Your task to perform on an android device: check out phone information Image 0: 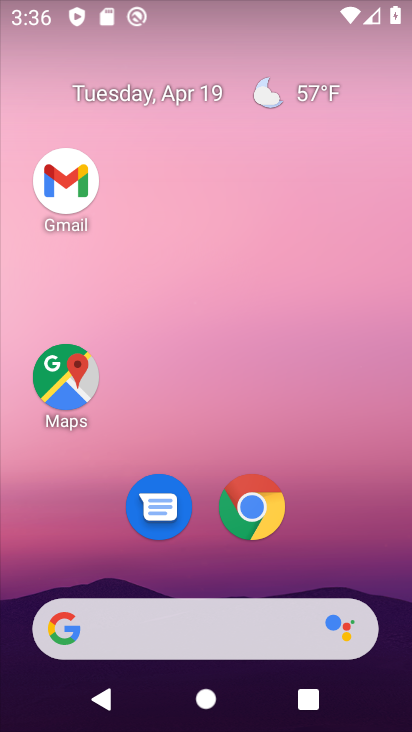
Step 0: drag from (235, 574) to (255, 223)
Your task to perform on an android device: check out phone information Image 1: 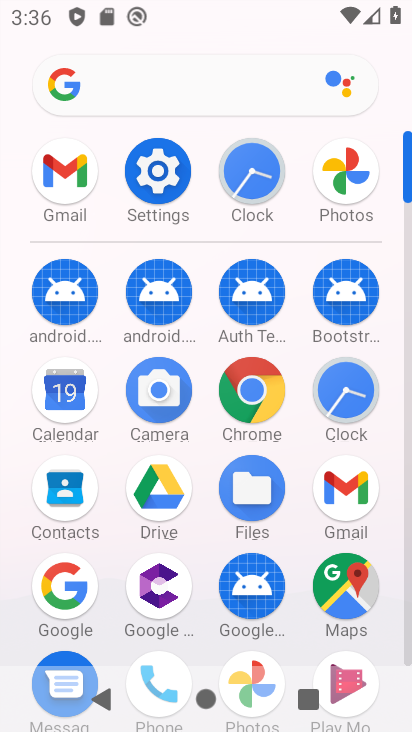
Step 1: click (171, 182)
Your task to perform on an android device: check out phone information Image 2: 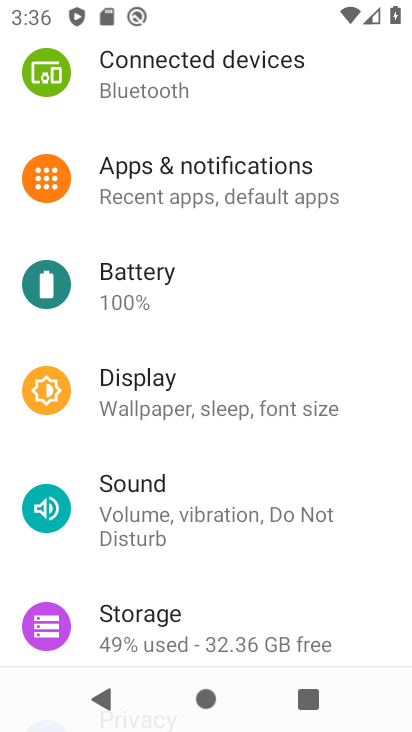
Step 2: drag from (163, 601) to (239, 222)
Your task to perform on an android device: check out phone information Image 3: 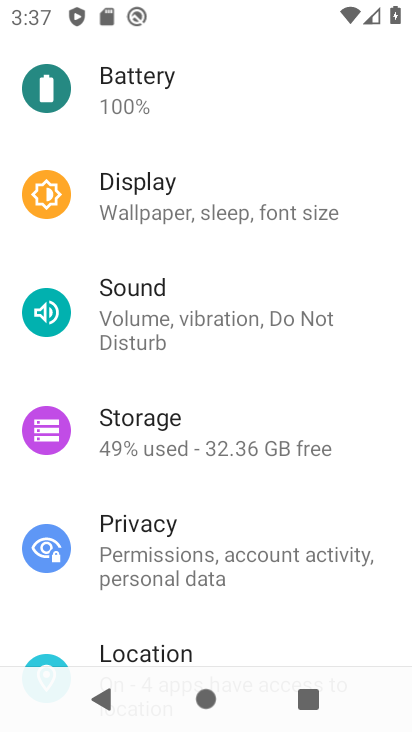
Step 3: drag from (279, 611) to (307, 245)
Your task to perform on an android device: check out phone information Image 4: 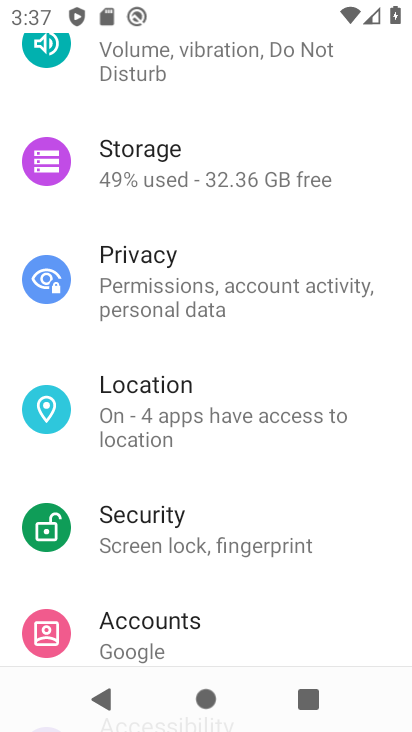
Step 4: drag from (280, 645) to (317, 237)
Your task to perform on an android device: check out phone information Image 5: 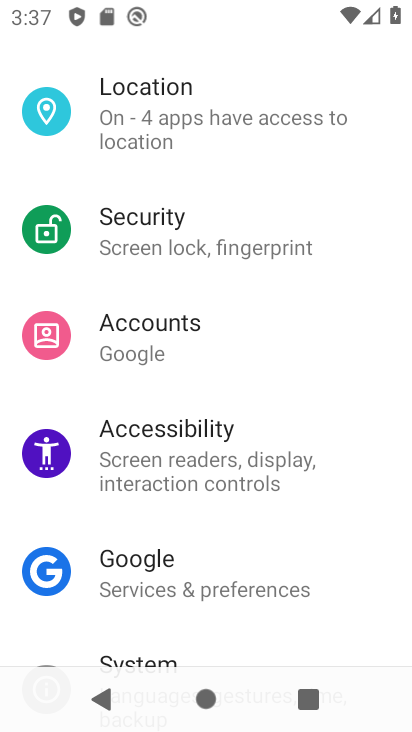
Step 5: drag from (301, 632) to (316, 225)
Your task to perform on an android device: check out phone information Image 6: 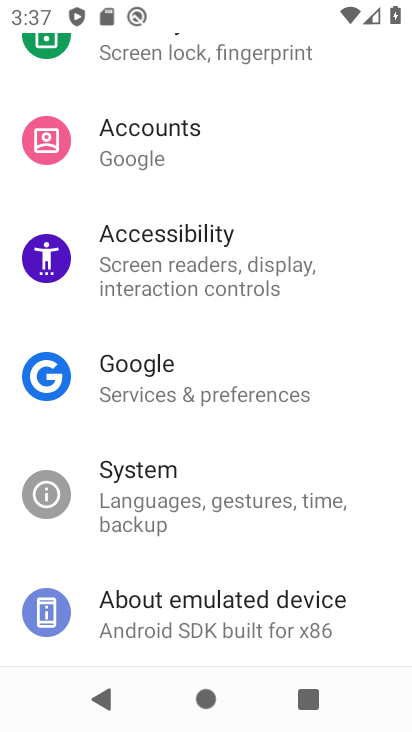
Step 6: click (246, 596)
Your task to perform on an android device: check out phone information Image 7: 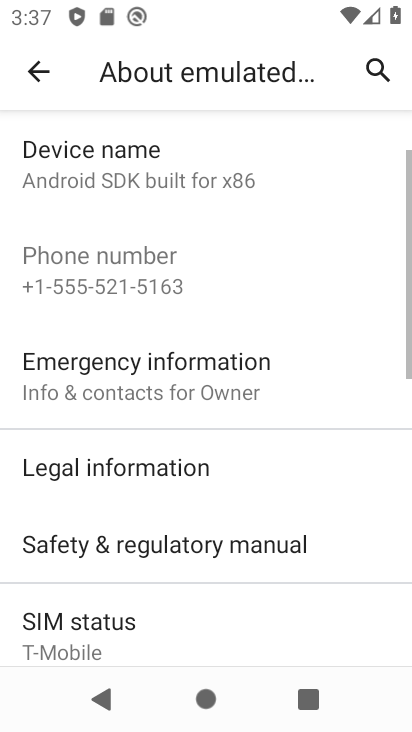
Step 7: drag from (204, 612) to (295, 188)
Your task to perform on an android device: check out phone information Image 8: 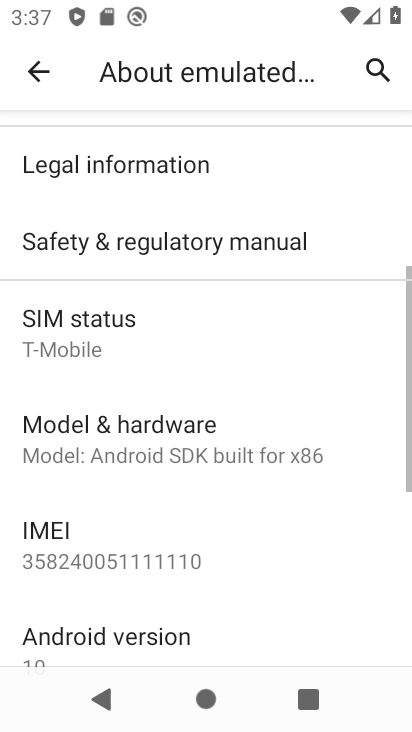
Step 8: click (242, 440)
Your task to perform on an android device: check out phone information Image 9: 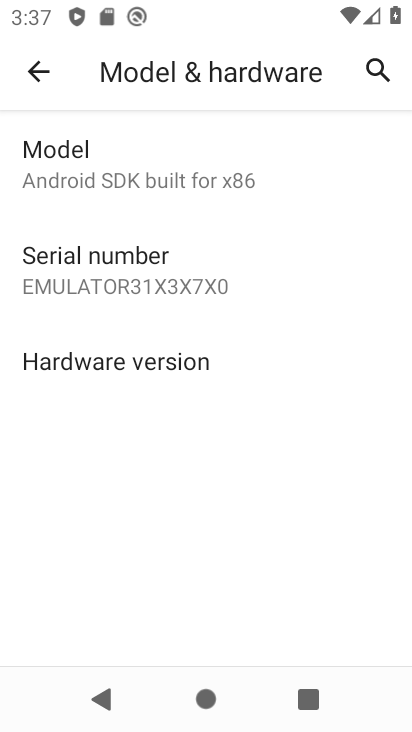
Step 9: task complete